Your task to perform on an android device: install app "PlayWell" Image 0: 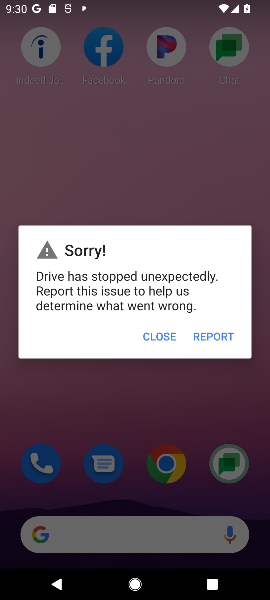
Step 0: click (153, 333)
Your task to perform on an android device: install app "PlayWell" Image 1: 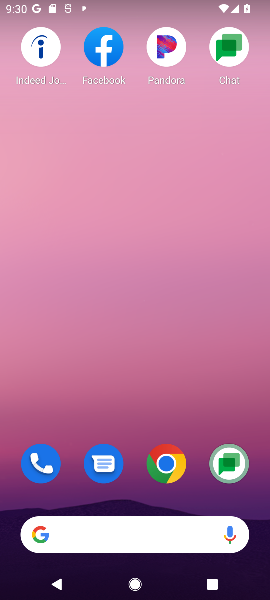
Step 1: drag from (127, 436) to (146, 28)
Your task to perform on an android device: install app "PlayWell" Image 2: 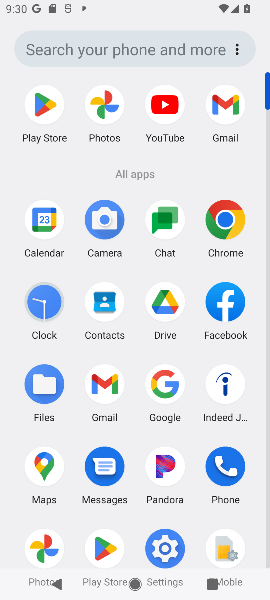
Step 2: click (40, 101)
Your task to perform on an android device: install app "PlayWell" Image 3: 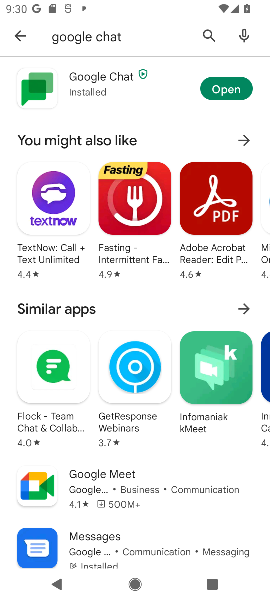
Step 3: click (209, 34)
Your task to perform on an android device: install app "PlayWell" Image 4: 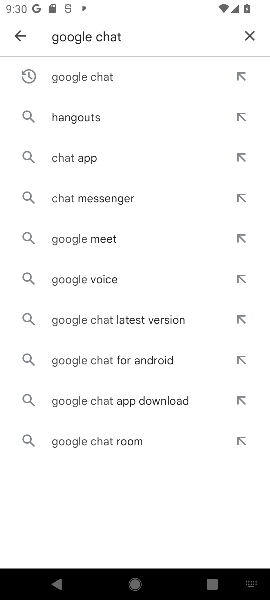
Step 4: click (242, 36)
Your task to perform on an android device: install app "PlayWell" Image 5: 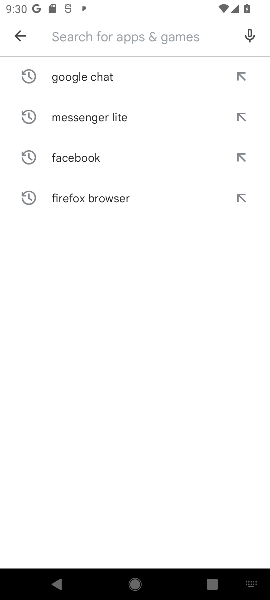
Step 5: type "PlayWell"
Your task to perform on an android device: install app "PlayWell" Image 6: 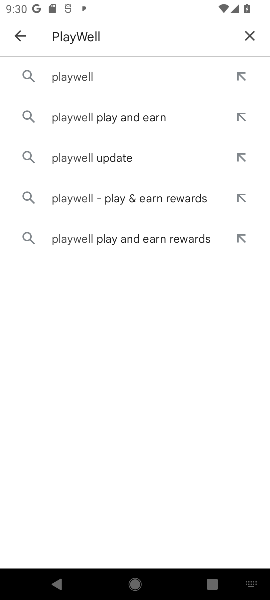
Step 6: click (88, 78)
Your task to perform on an android device: install app "PlayWell" Image 7: 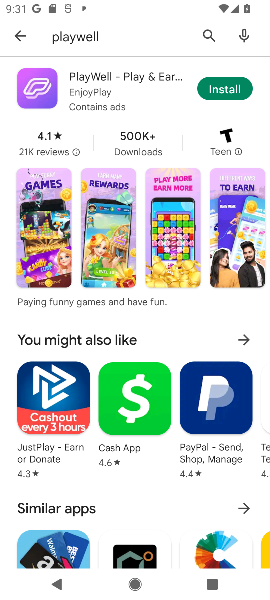
Step 7: click (227, 84)
Your task to perform on an android device: install app "PlayWell" Image 8: 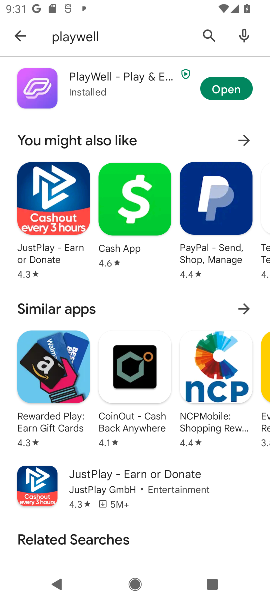
Step 8: click (226, 84)
Your task to perform on an android device: install app "PlayWell" Image 9: 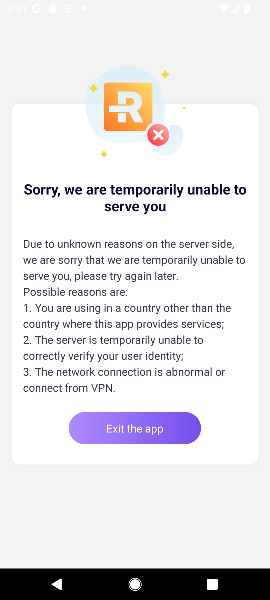
Step 9: task complete